Your task to perform on an android device: Search for the best way to make a resume. Image 0: 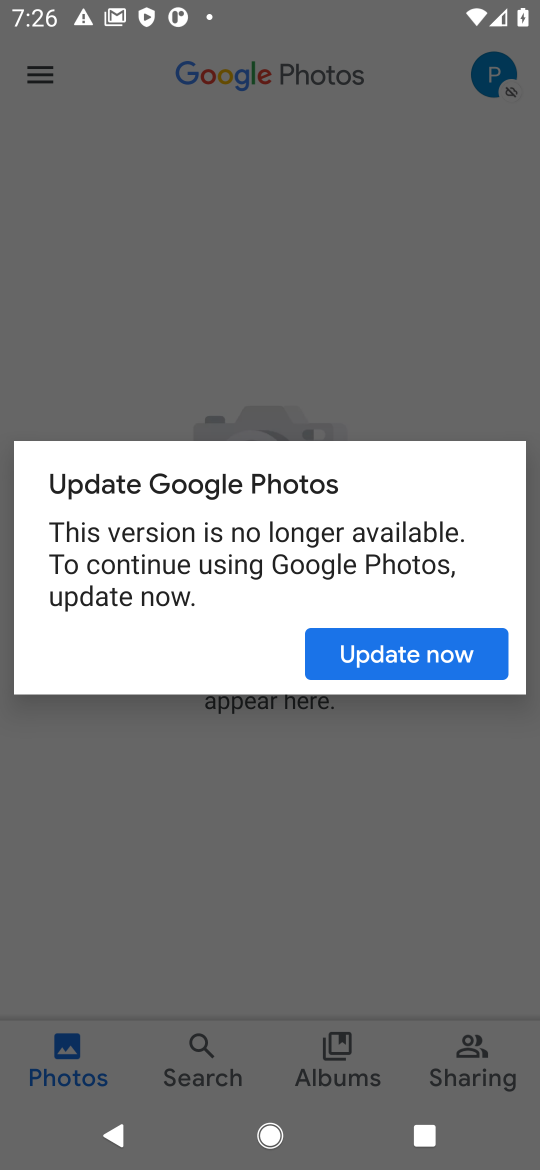
Step 0: press home button
Your task to perform on an android device: Search for the best way to make a resume. Image 1: 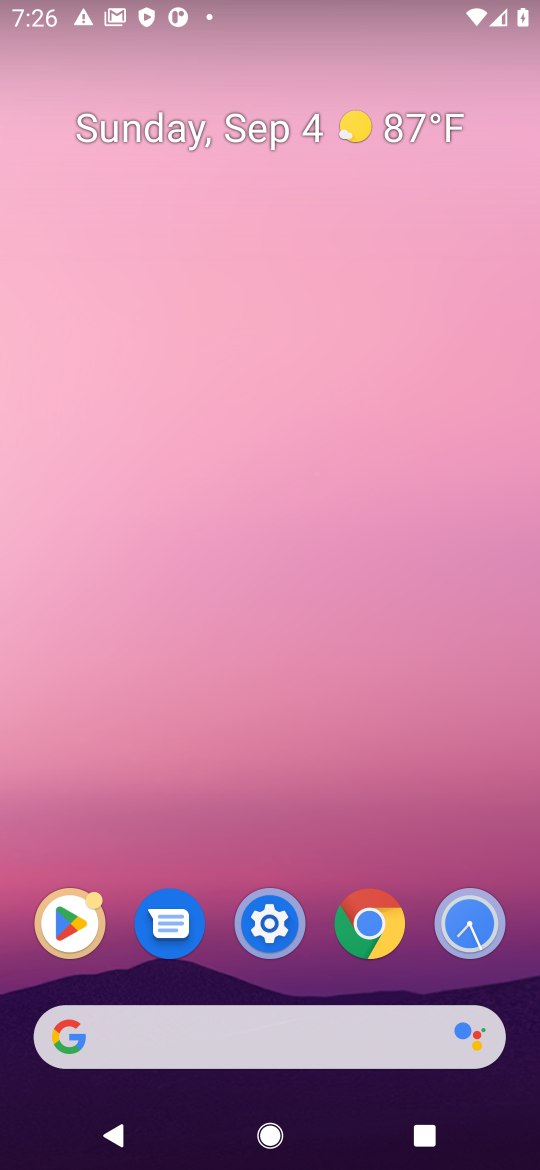
Step 1: click (387, 1038)
Your task to perform on an android device: Search for the best way to make a resume. Image 2: 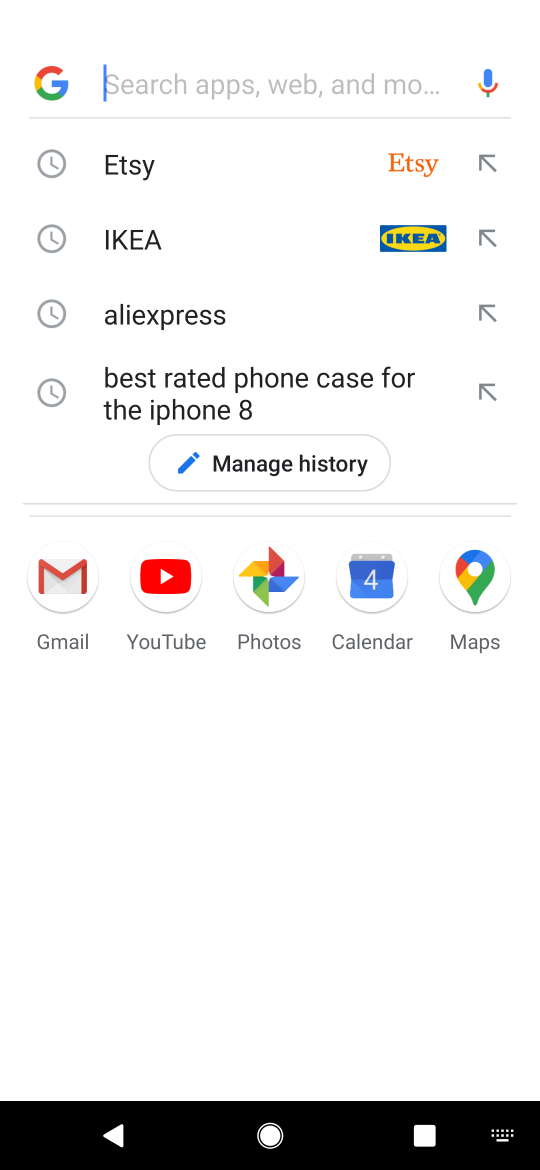
Step 2: type " best way to make a resume"
Your task to perform on an android device: Search for the best way to make a resume. Image 3: 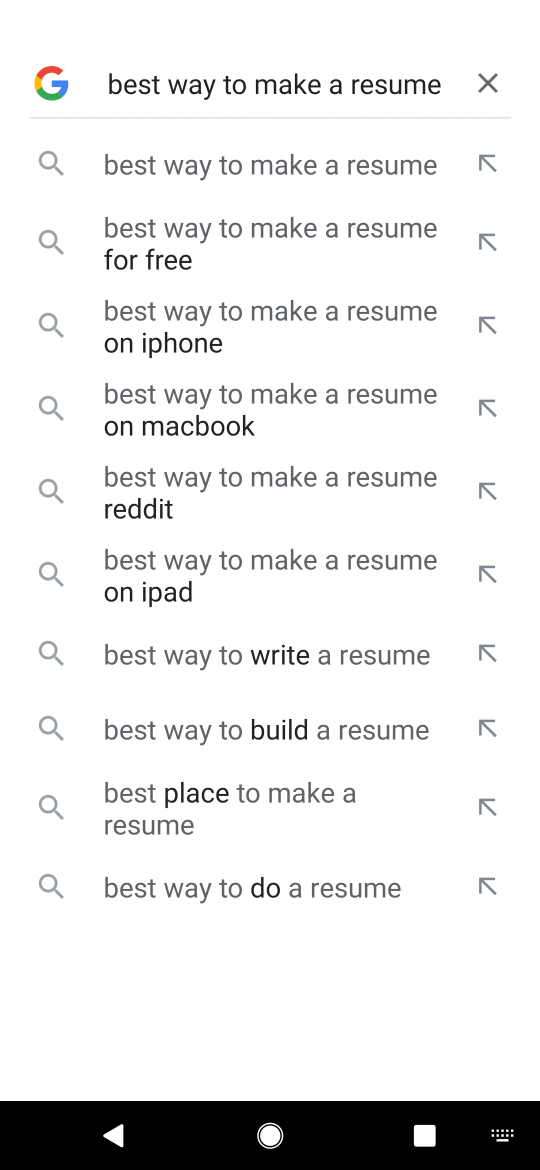
Step 3: press enter
Your task to perform on an android device: Search for the best way to make a resume. Image 4: 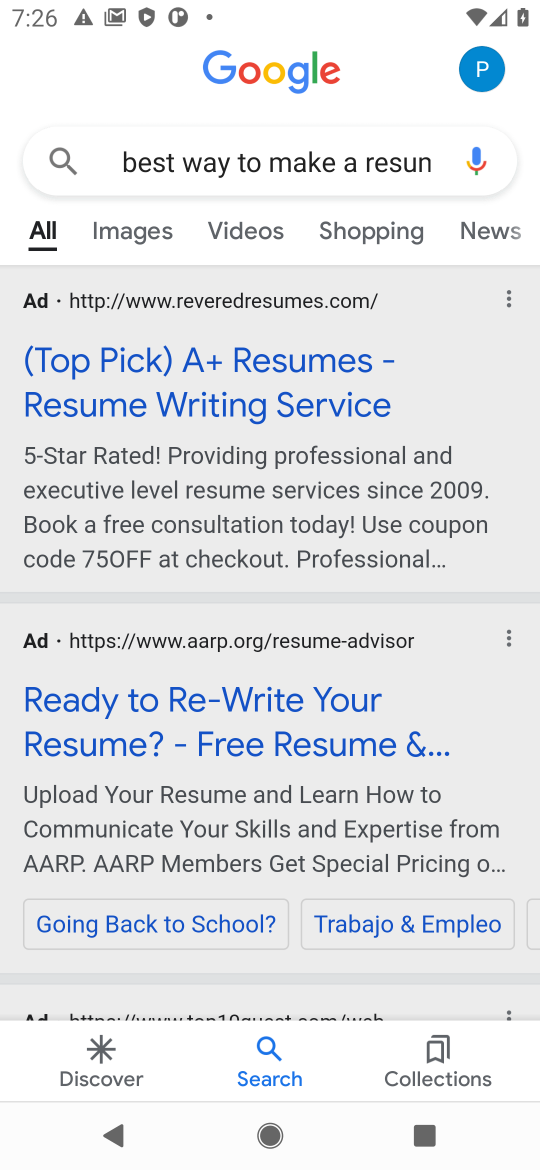
Step 4: click (278, 392)
Your task to perform on an android device: Search for the best way to make a resume. Image 5: 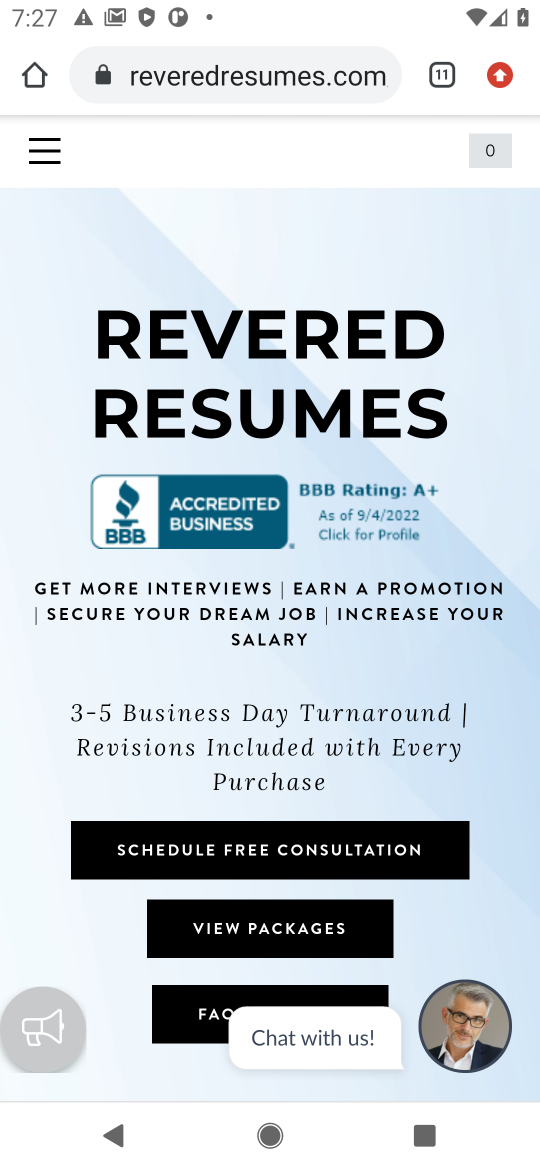
Step 5: task complete